Your task to perform on an android device: turn on showing notifications on the lock screen Image 0: 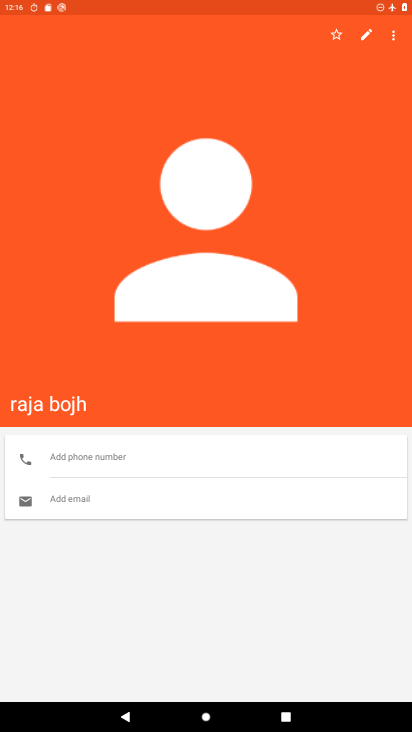
Step 0: press home button
Your task to perform on an android device: turn on showing notifications on the lock screen Image 1: 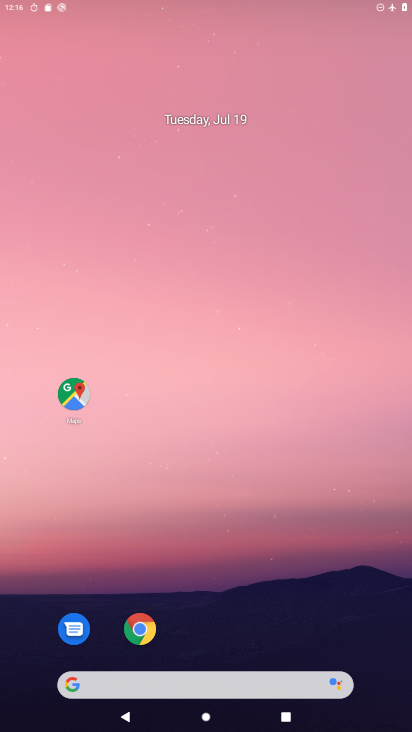
Step 1: drag from (336, 603) to (205, 80)
Your task to perform on an android device: turn on showing notifications on the lock screen Image 2: 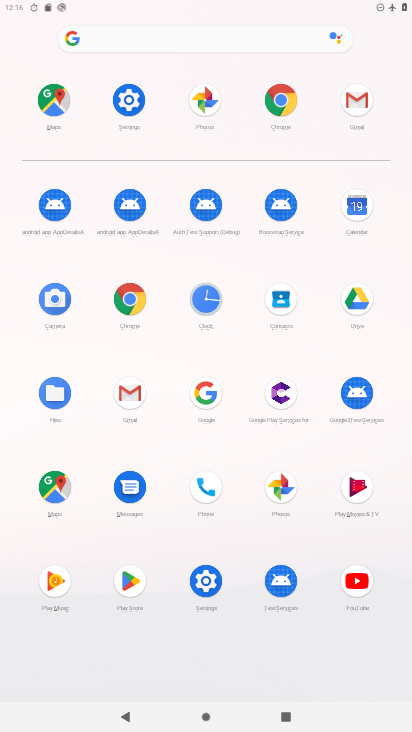
Step 2: click (136, 93)
Your task to perform on an android device: turn on showing notifications on the lock screen Image 3: 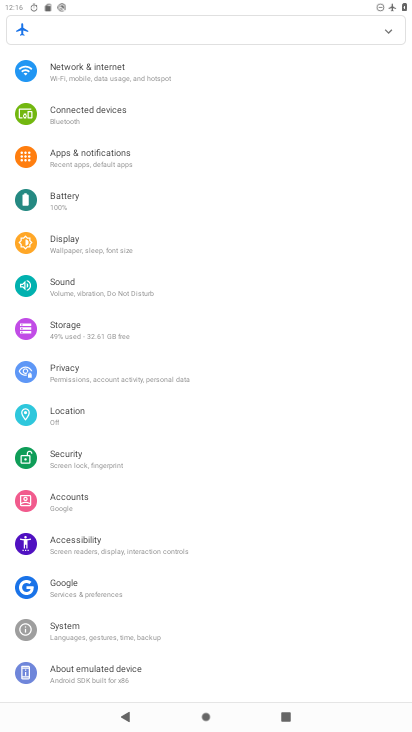
Step 3: click (86, 168)
Your task to perform on an android device: turn on showing notifications on the lock screen Image 4: 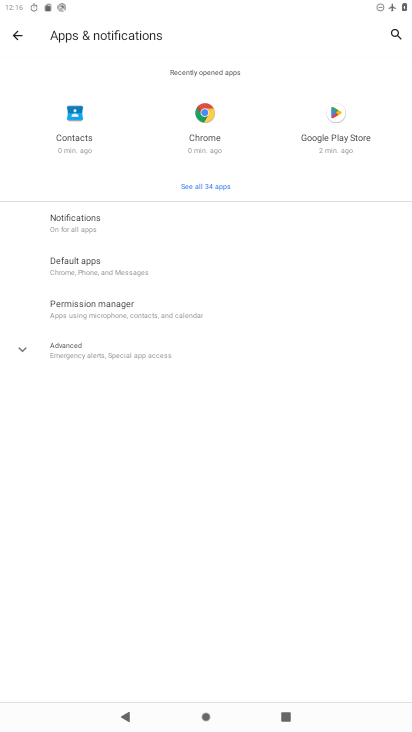
Step 4: click (66, 213)
Your task to perform on an android device: turn on showing notifications on the lock screen Image 5: 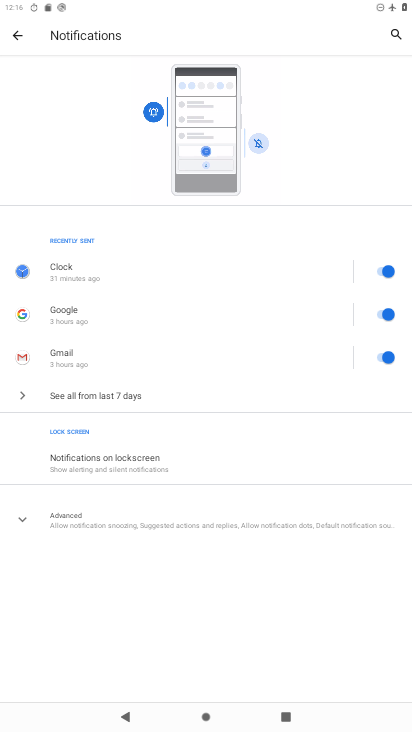
Step 5: click (97, 451)
Your task to perform on an android device: turn on showing notifications on the lock screen Image 6: 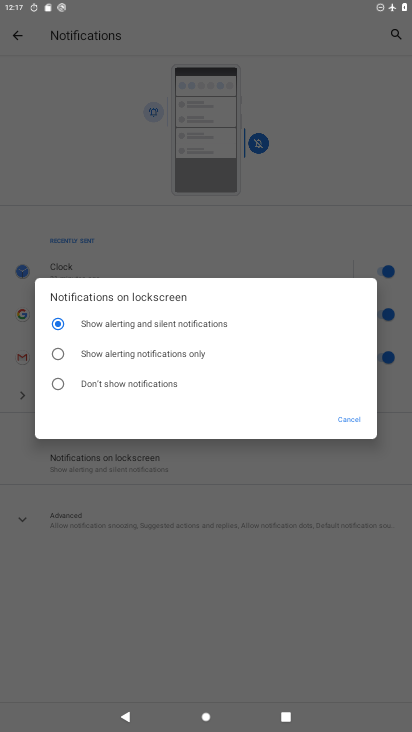
Step 6: click (182, 351)
Your task to perform on an android device: turn on showing notifications on the lock screen Image 7: 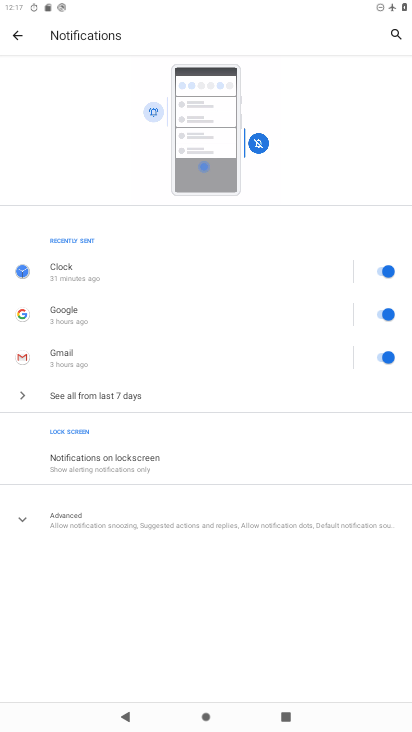
Step 7: task complete